Your task to perform on an android device: turn off sleep mode Image 0: 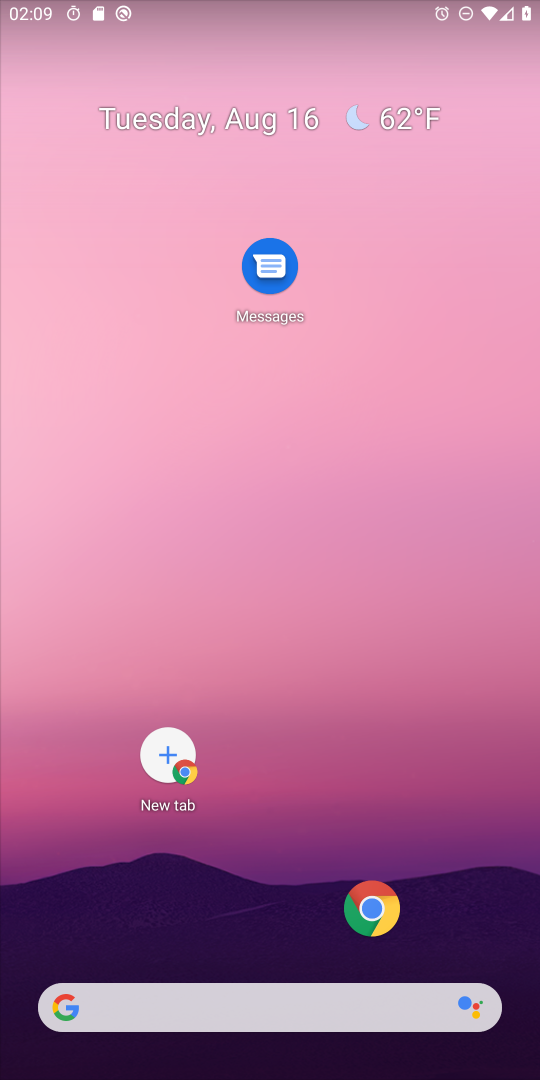
Step 0: drag from (236, 910) to (258, 179)
Your task to perform on an android device: turn off sleep mode Image 1: 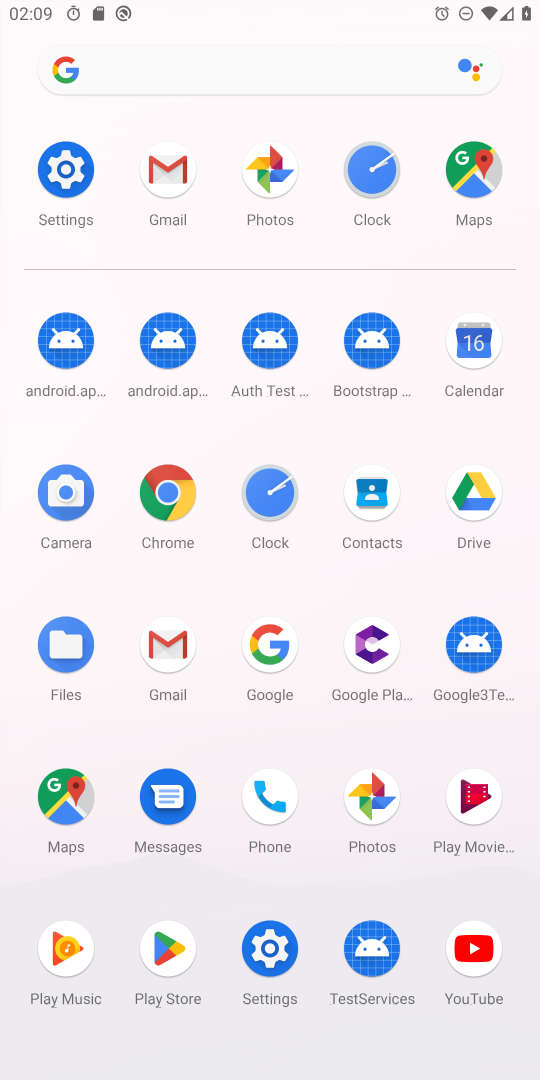
Step 1: click (61, 185)
Your task to perform on an android device: turn off sleep mode Image 2: 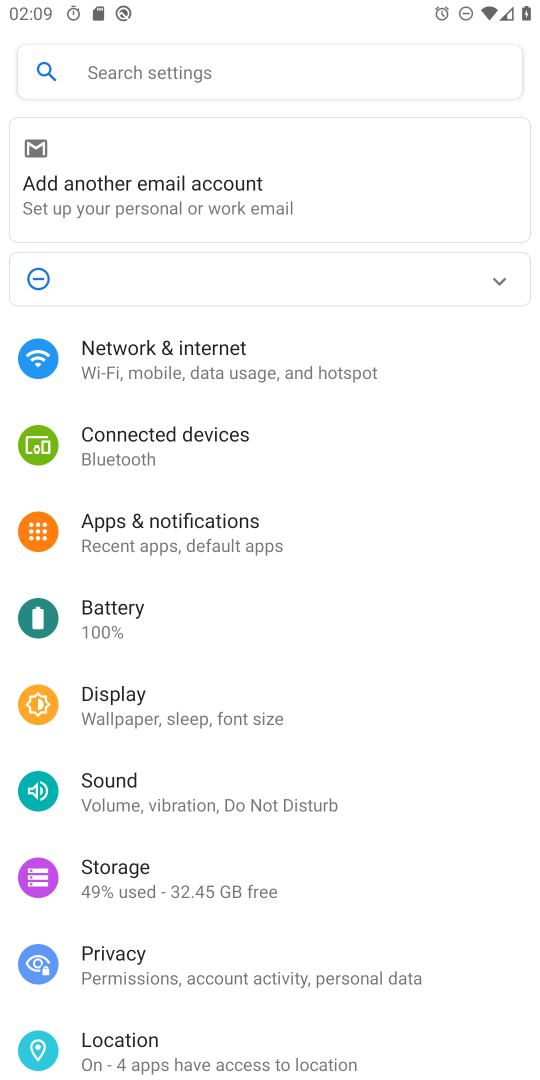
Step 2: task complete